Your task to perform on an android device: set default search engine in the chrome app Image 0: 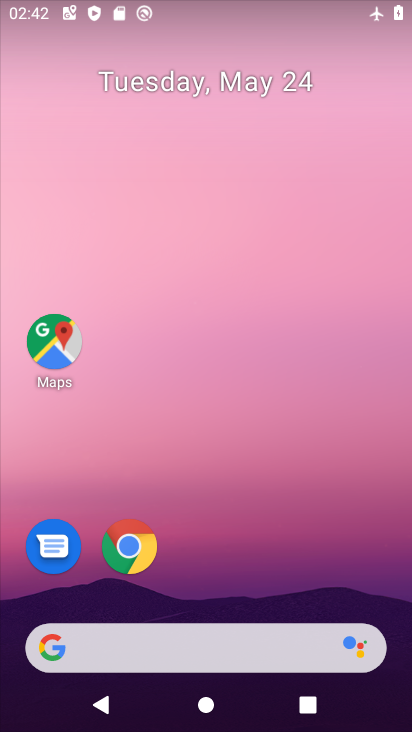
Step 0: drag from (185, 567) to (237, 44)
Your task to perform on an android device: set default search engine in the chrome app Image 1: 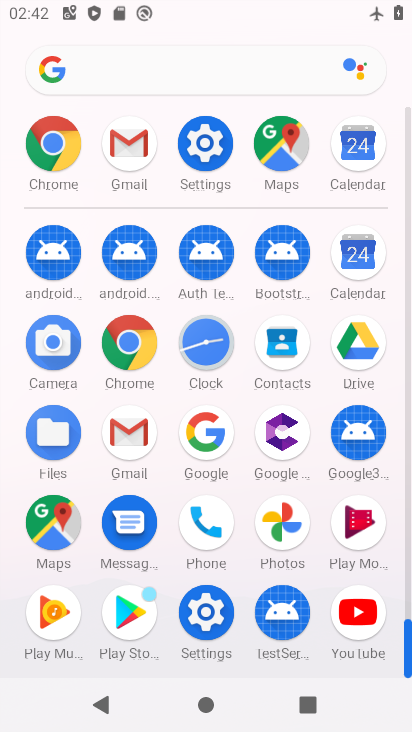
Step 1: click (117, 337)
Your task to perform on an android device: set default search engine in the chrome app Image 2: 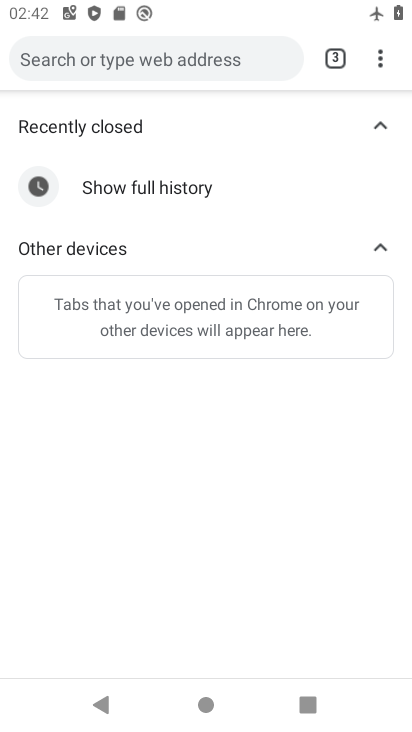
Step 2: click (386, 58)
Your task to perform on an android device: set default search engine in the chrome app Image 3: 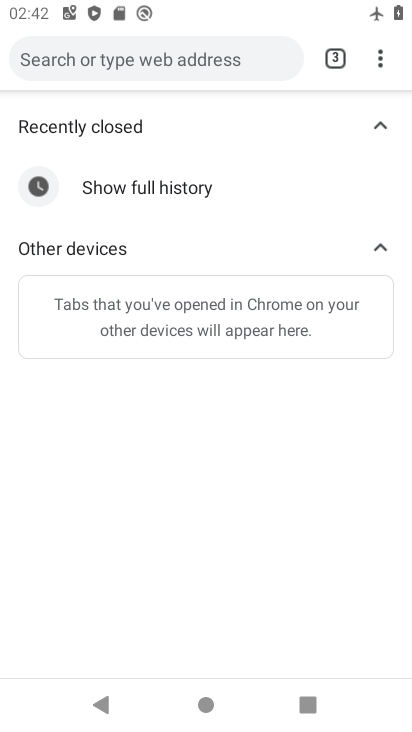
Step 3: click (373, 53)
Your task to perform on an android device: set default search engine in the chrome app Image 4: 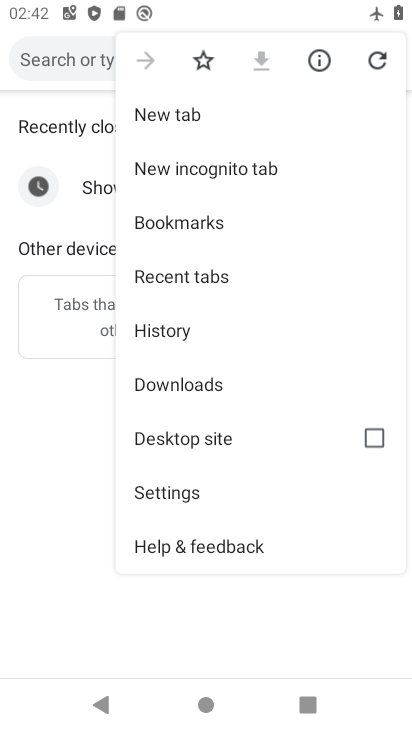
Step 4: click (180, 500)
Your task to perform on an android device: set default search engine in the chrome app Image 5: 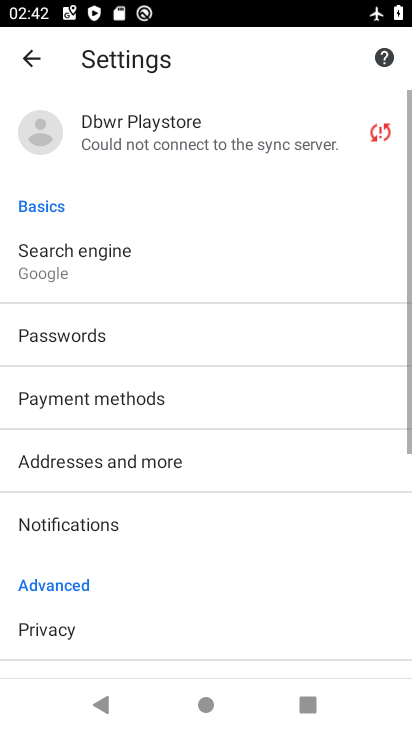
Step 5: drag from (154, 523) to (227, 129)
Your task to perform on an android device: set default search engine in the chrome app Image 6: 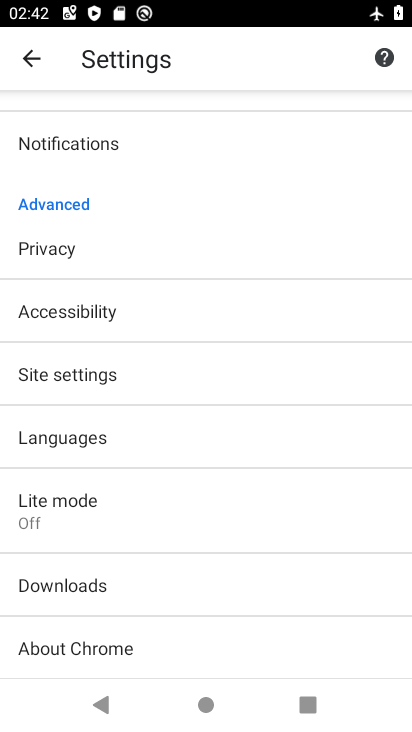
Step 6: drag from (125, 194) to (184, 451)
Your task to perform on an android device: set default search engine in the chrome app Image 7: 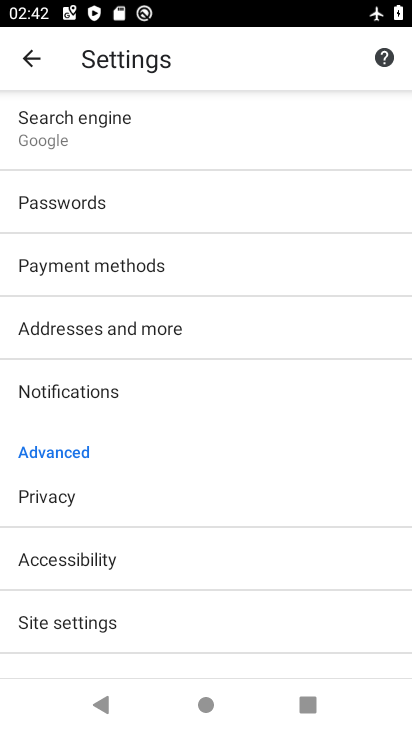
Step 7: drag from (230, 116) to (252, 457)
Your task to perform on an android device: set default search engine in the chrome app Image 8: 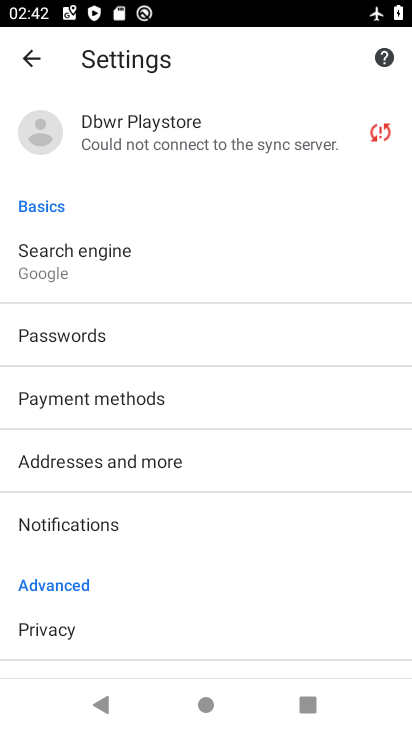
Step 8: click (117, 261)
Your task to perform on an android device: set default search engine in the chrome app Image 9: 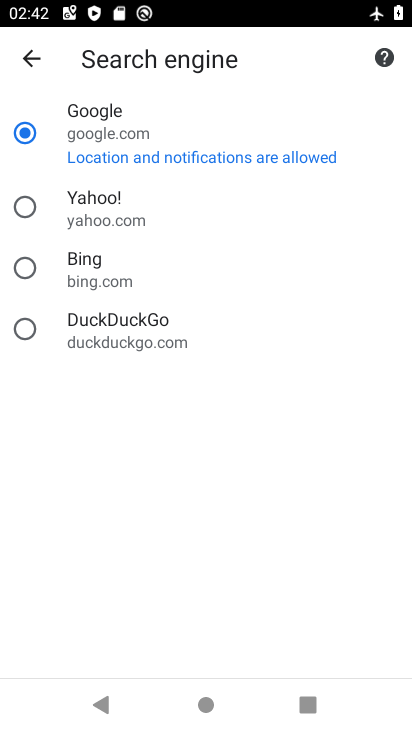
Step 9: task complete